Your task to perform on an android device: delete browsing data in the chrome app Image 0: 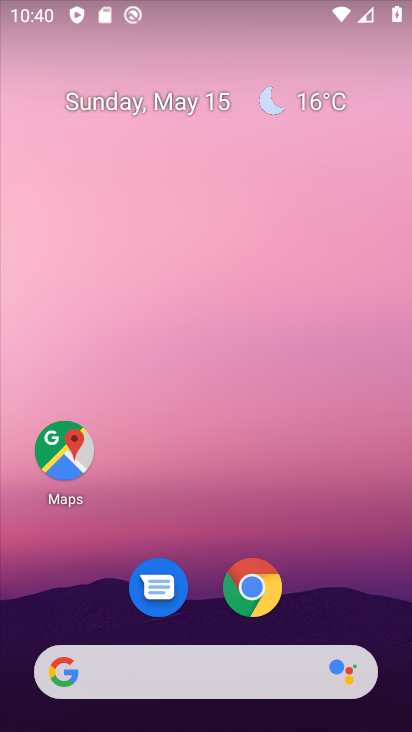
Step 0: drag from (320, 578) to (305, 49)
Your task to perform on an android device: delete browsing data in the chrome app Image 1: 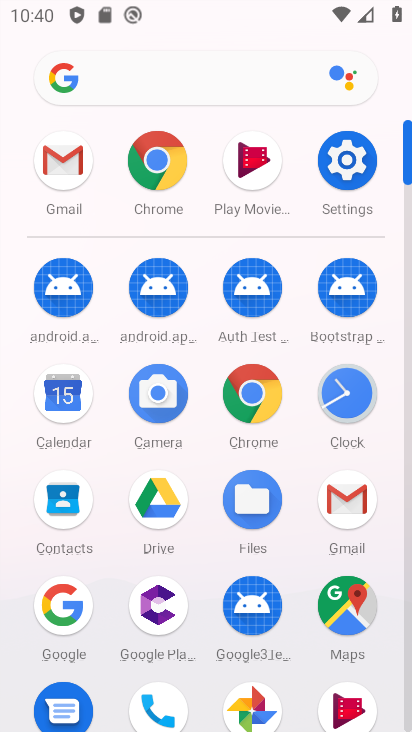
Step 1: drag from (8, 590) to (22, 277)
Your task to perform on an android device: delete browsing data in the chrome app Image 2: 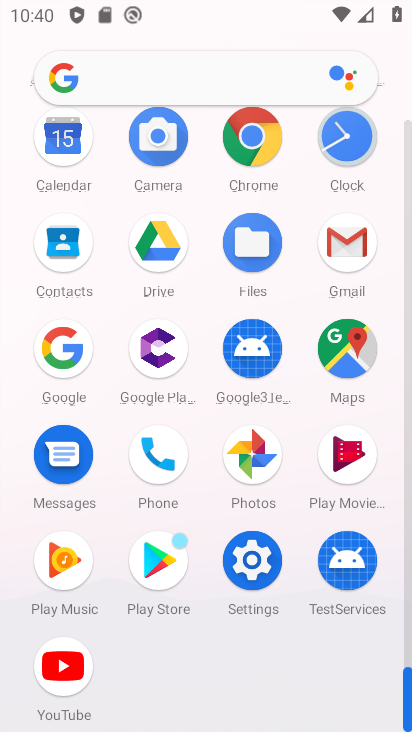
Step 2: click (247, 128)
Your task to perform on an android device: delete browsing data in the chrome app Image 3: 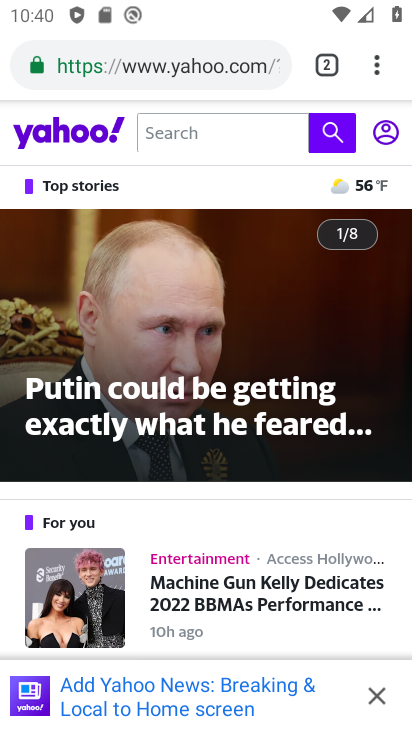
Step 3: drag from (375, 61) to (160, 375)
Your task to perform on an android device: delete browsing data in the chrome app Image 4: 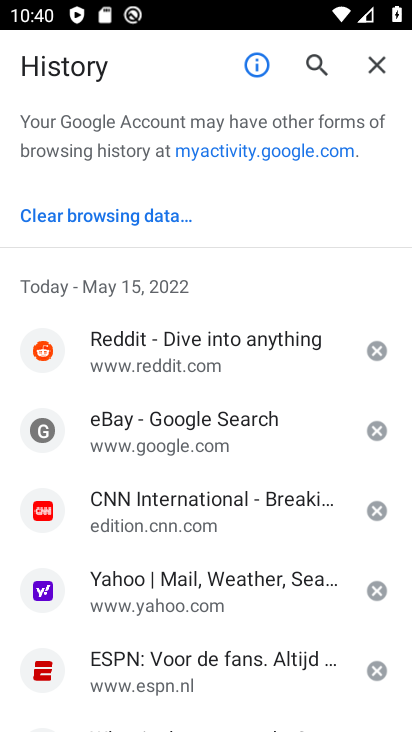
Step 4: click (148, 212)
Your task to perform on an android device: delete browsing data in the chrome app Image 5: 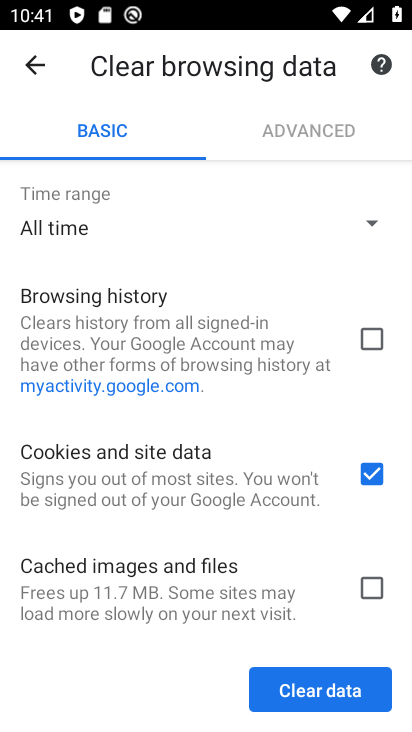
Step 5: click (368, 338)
Your task to perform on an android device: delete browsing data in the chrome app Image 6: 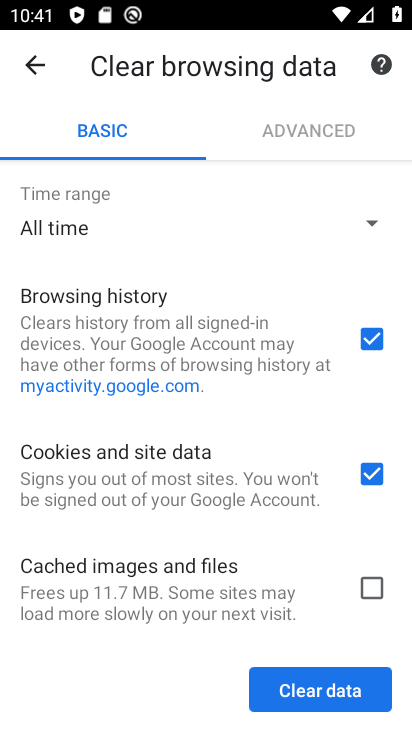
Step 6: click (369, 573)
Your task to perform on an android device: delete browsing data in the chrome app Image 7: 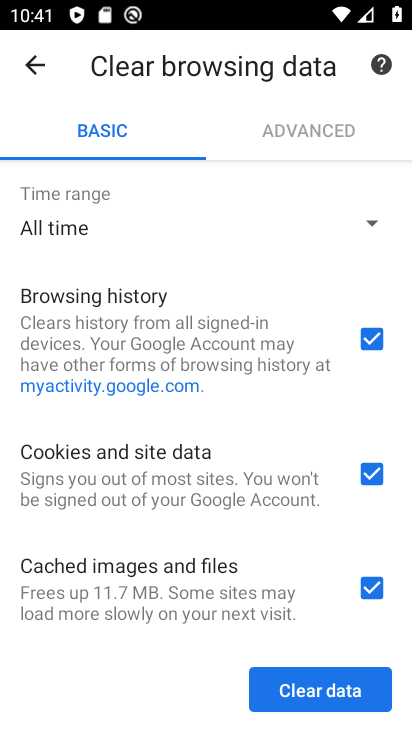
Step 7: click (328, 686)
Your task to perform on an android device: delete browsing data in the chrome app Image 8: 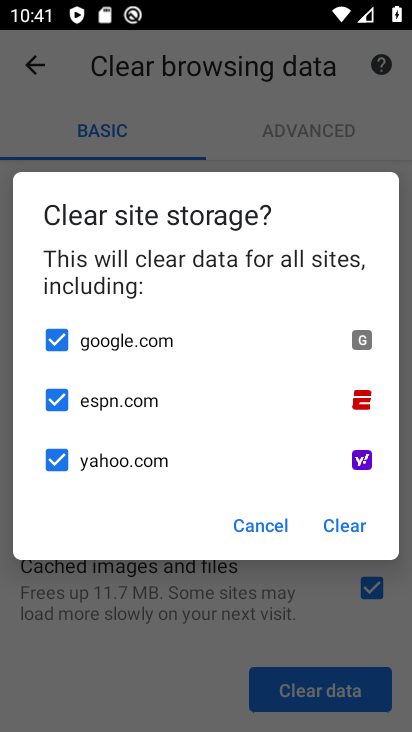
Step 8: click (360, 530)
Your task to perform on an android device: delete browsing data in the chrome app Image 9: 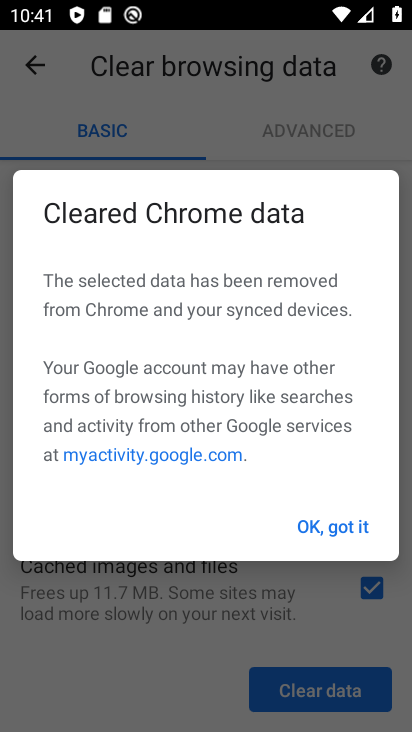
Step 9: click (356, 520)
Your task to perform on an android device: delete browsing data in the chrome app Image 10: 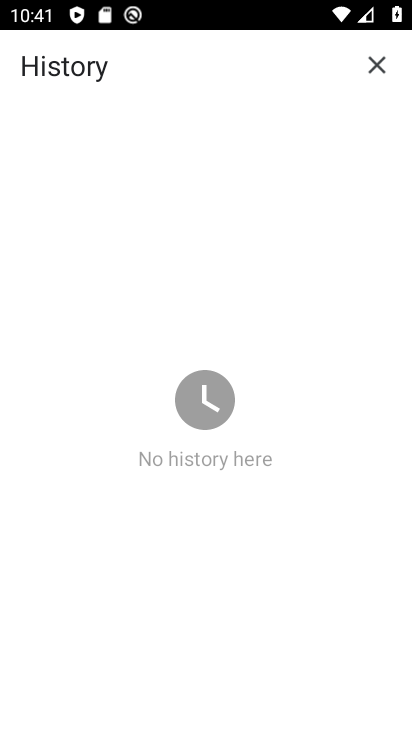
Step 10: task complete